Your task to perform on an android device: Go to location settings Image 0: 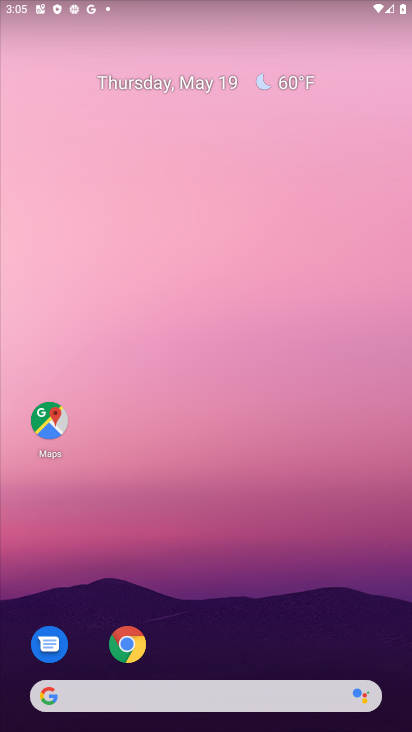
Step 0: drag from (249, 552) to (289, 110)
Your task to perform on an android device: Go to location settings Image 1: 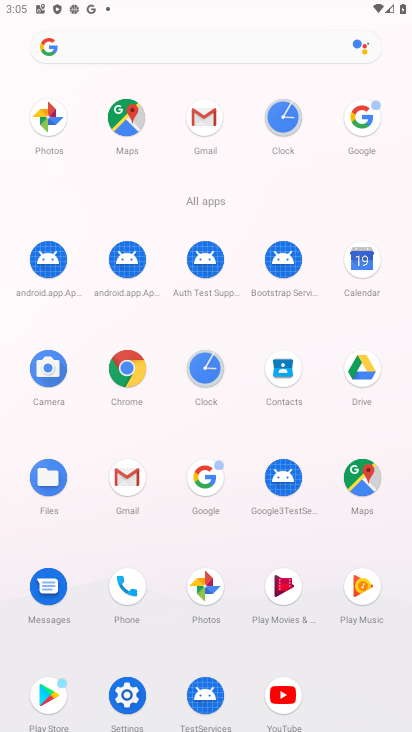
Step 1: click (118, 702)
Your task to perform on an android device: Go to location settings Image 2: 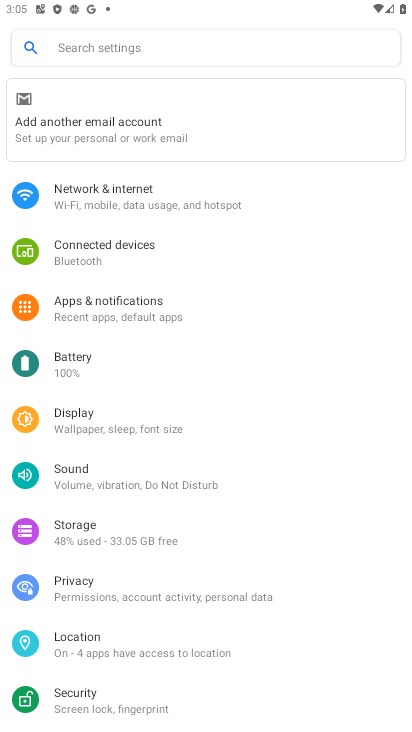
Step 2: click (122, 644)
Your task to perform on an android device: Go to location settings Image 3: 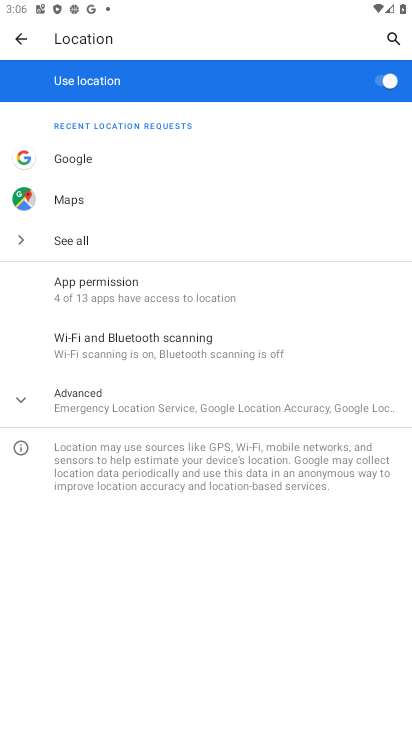
Step 3: task complete